Your task to perform on an android device: add a contact Image 0: 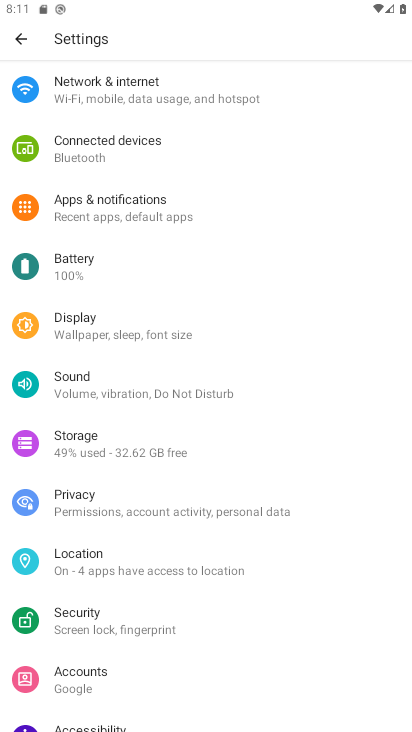
Step 0: press home button
Your task to perform on an android device: add a contact Image 1: 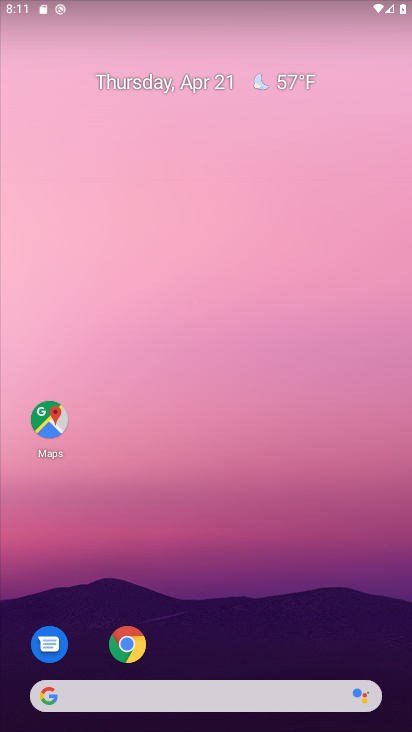
Step 1: drag from (227, 631) to (203, 46)
Your task to perform on an android device: add a contact Image 2: 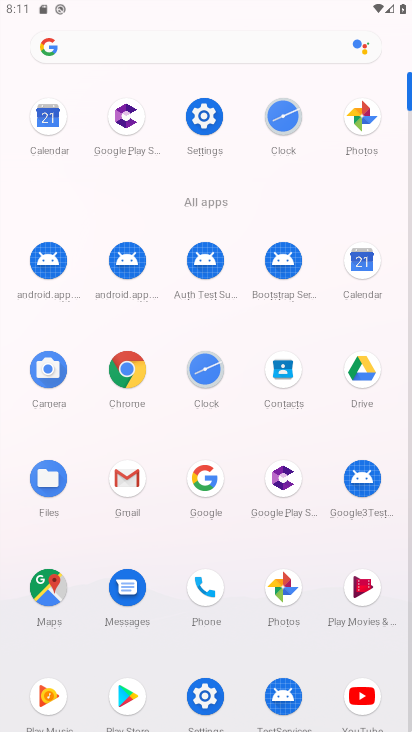
Step 2: click (285, 369)
Your task to perform on an android device: add a contact Image 3: 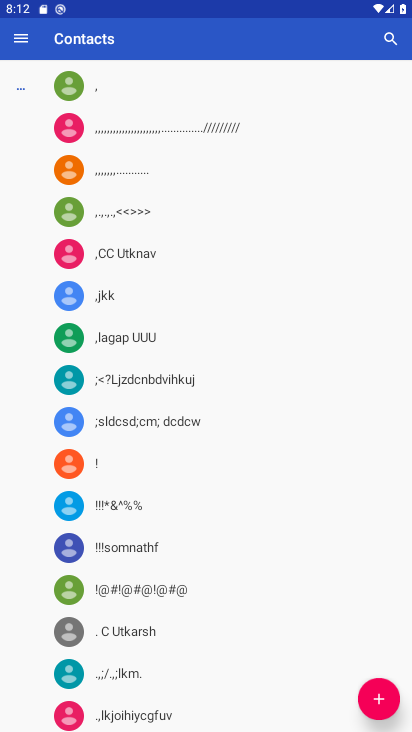
Step 3: click (372, 699)
Your task to perform on an android device: add a contact Image 4: 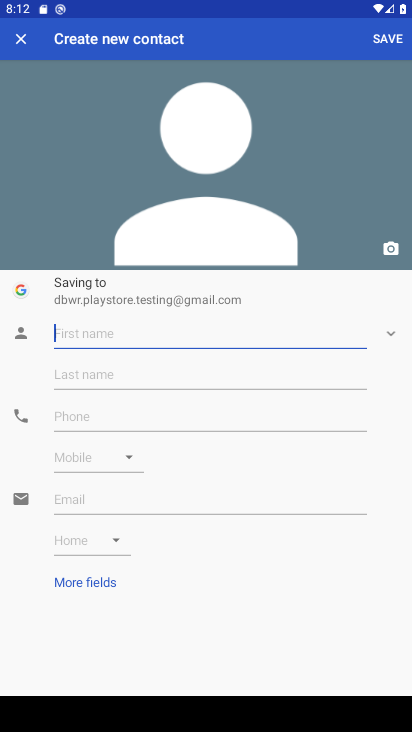
Step 4: type "fgsdf"
Your task to perform on an android device: add a contact Image 5: 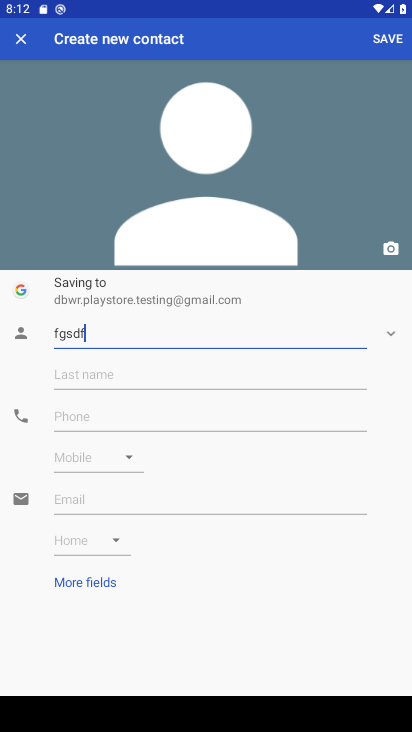
Step 5: click (278, 378)
Your task to perform on an android device: add a contact Image 6: 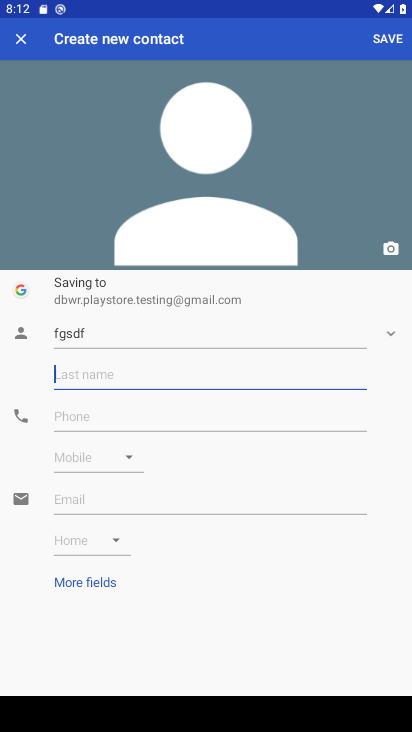
Step 6: type "dfgsdfg"
Your task to perform on an android device: add a contact Image 7: 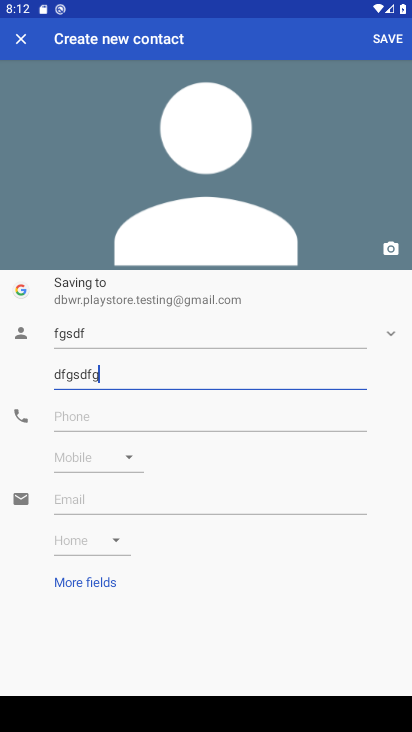
Step 7: type ""
Your task to perform on an android device: add a contact Image 8: 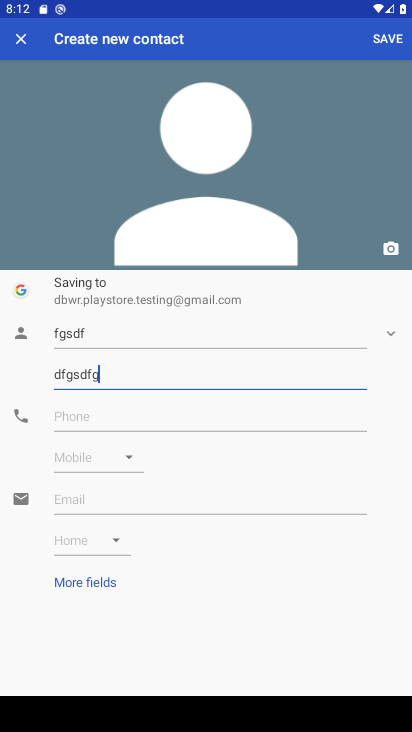
Step 8: click (259, 420)
Your task to perform on an android device: add a contact Image 9: 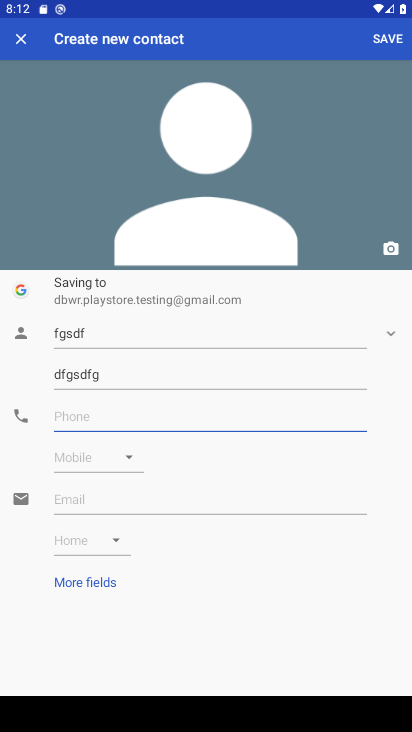
Step 9: type "34523345234"
Your task to perform on an android device: add a contact Image 10: 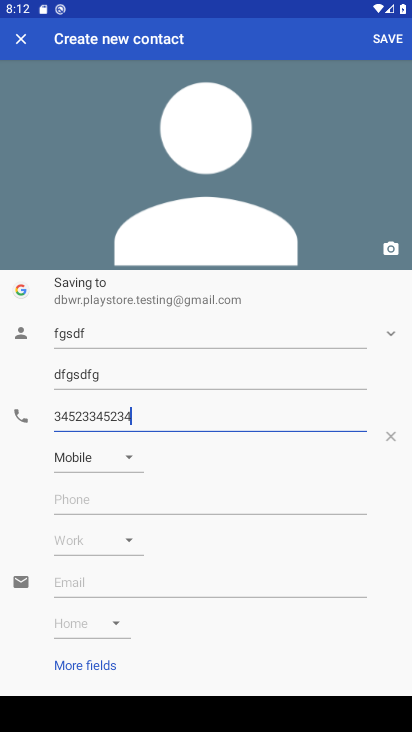
Step 10: click (385, 43)
Your task to perform on an android device: add a contact Image 11: 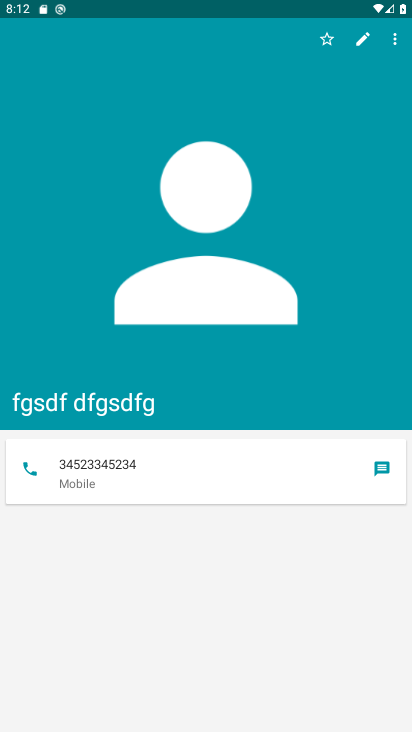
Step 11: task complete